Your task to perform on an android device: change your default location settings in chrome Image 0: 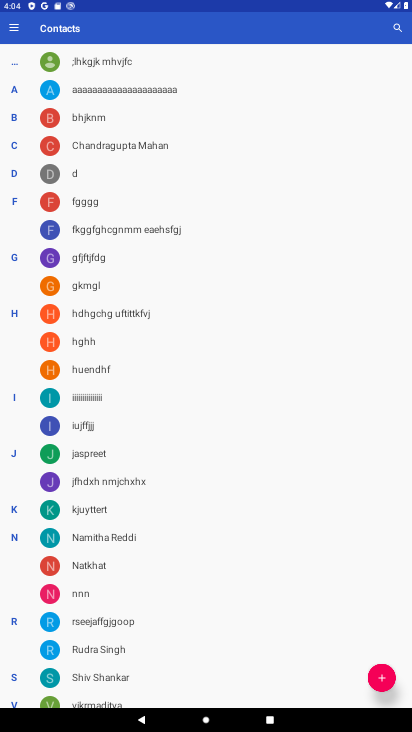
Step 0: press home button
Your task to perform on an android device: change your default location settings in chrome Image 1: 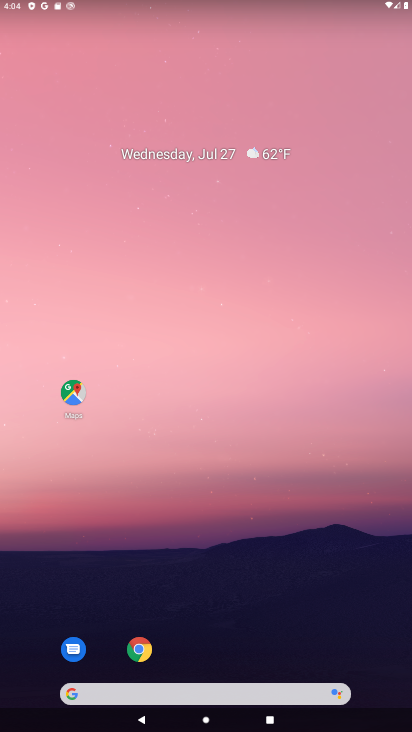
Step 1: drag from (258, 426) to (260, 244)
Your task to perform on an android device: change your default location settings in chrome Image 2: 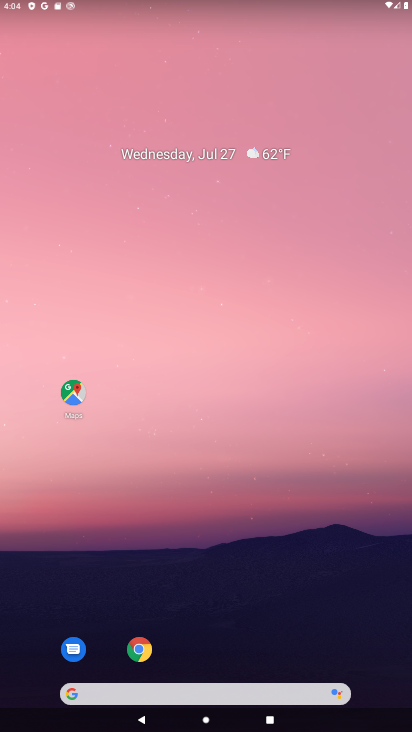
Step 2: drag from (274, 556) to (340, 95)
Your task to perform on an android device: change your default location settings in chrome Image 3: 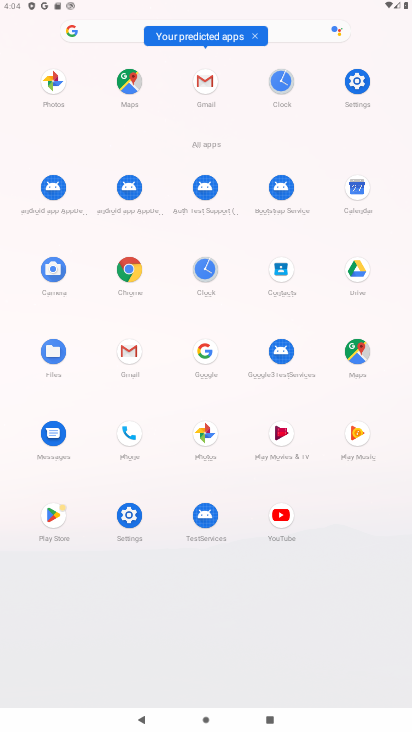
Step 3: click (133, 274)
Your task to perform on an android device: change your default location settings in chrome Image 4: 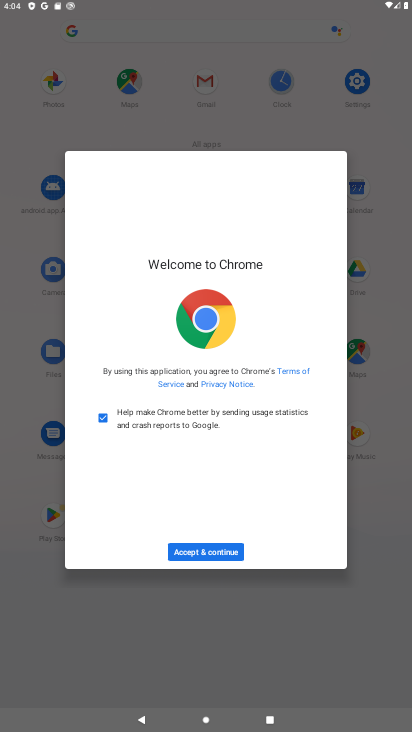
Step 4: click (209, 545)
Your task to perform on an android device: change your default location settings in chrome Image 5: 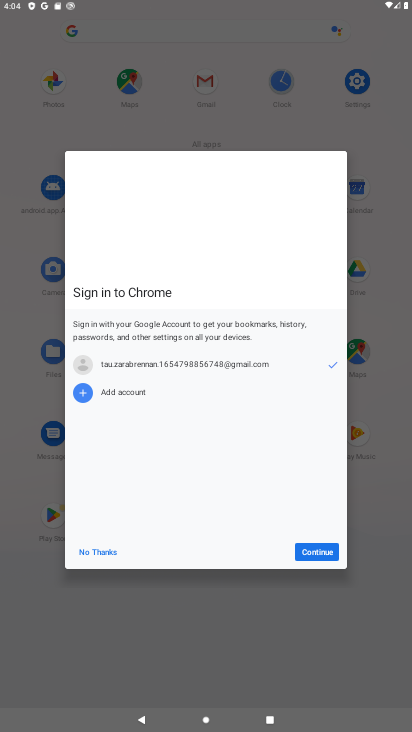
Step 5: click (317, 557)
Your task to perform on an android device: change your default location settings in chrome Image 6: 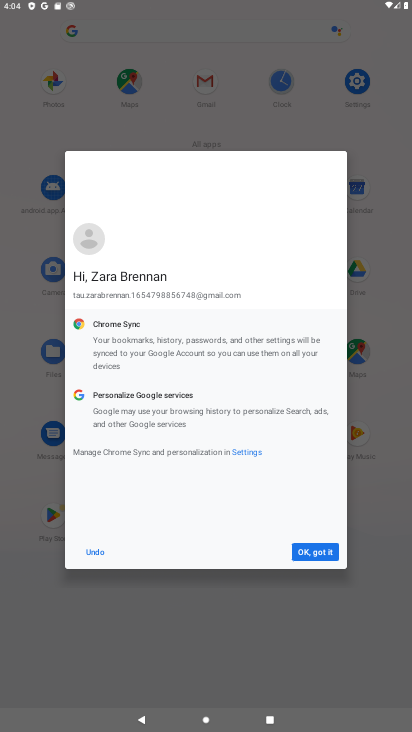
Step 6: click (317, 557)
Your task to perform on an android device: change your default location settings in chrome Image 7: 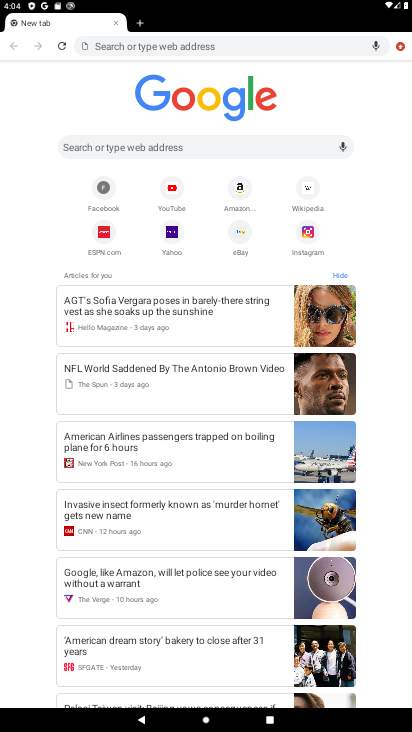
Step 7: task complete